Your task to perform on an android device: change the clock display to digital Image 0: 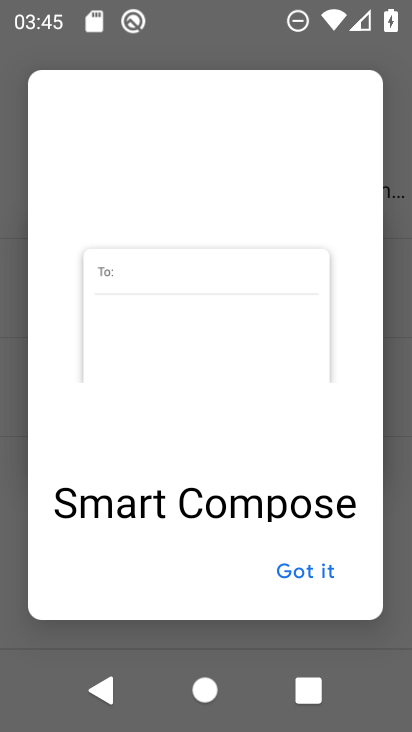
Step 0: press home button
Your task to perform on an android device: change the clock display to digital Image 1: 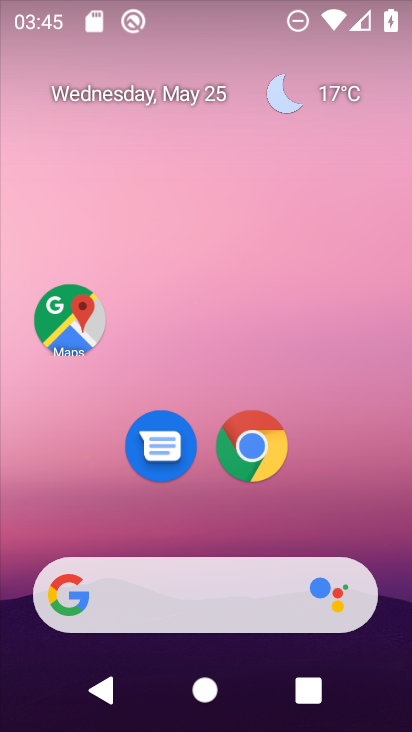
Step 1: drag from (192, 583) to (227, 184)
Your task to perform on an android device: change the clock display to digital Image 2: 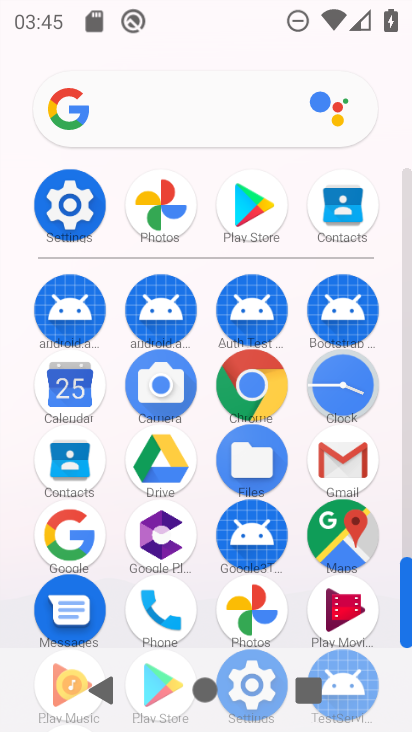
Step 2: click (344, 384)
Your task to perform on an android device: change the clock display to digital Image 3: 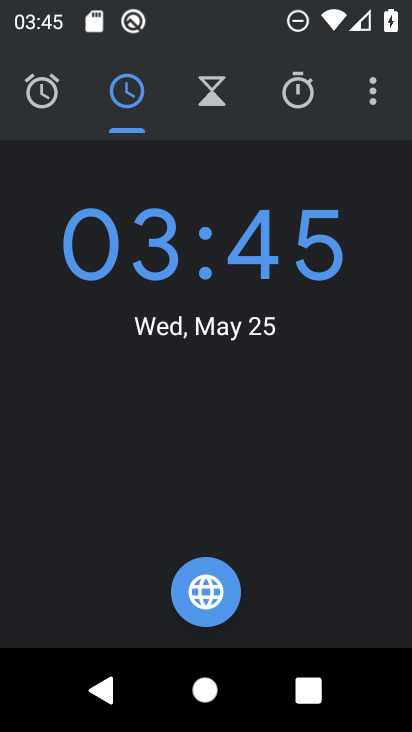
Step 3: click (365, 81)
Your task to perform on an android device: change the clock display to digital Image 4: 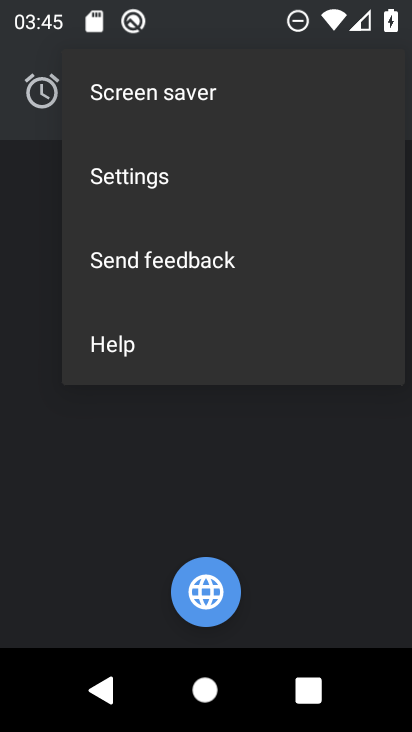
Step 4: click (201, 171)
Your task to perform on an android device: change the clock display to digital Image 5: 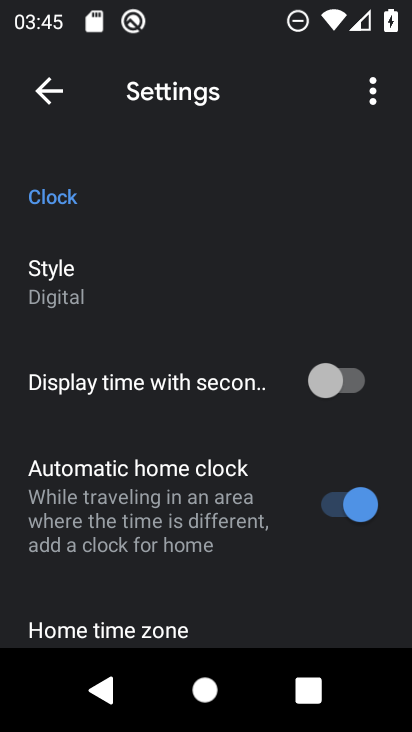
Step 5: click (102, 288)
Your task to perform on an android device: change the clock display to digital Image 6: 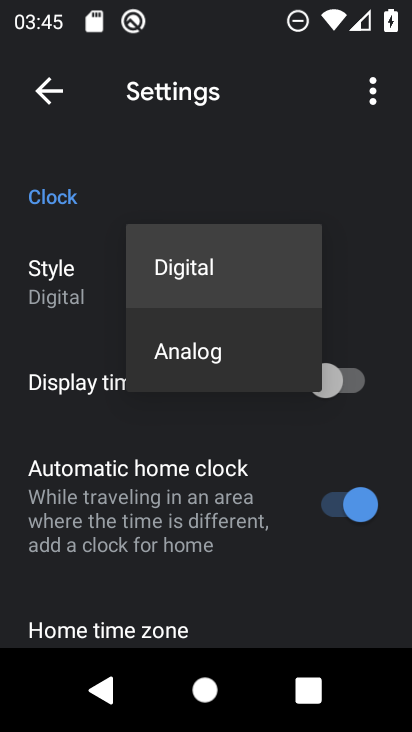
Step 6: click (218, 279)
Your task to perform on an android device: change the clock display to digital Image 7: 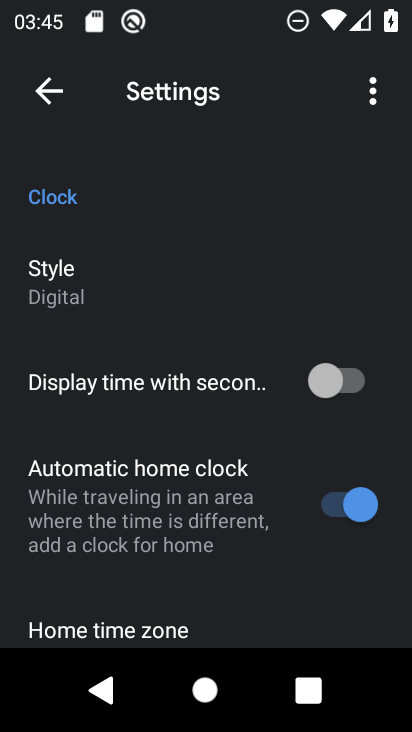
Step 7: task complete